Your task to perform on an android device: toggle notifications settings in the gmail app Image 0: 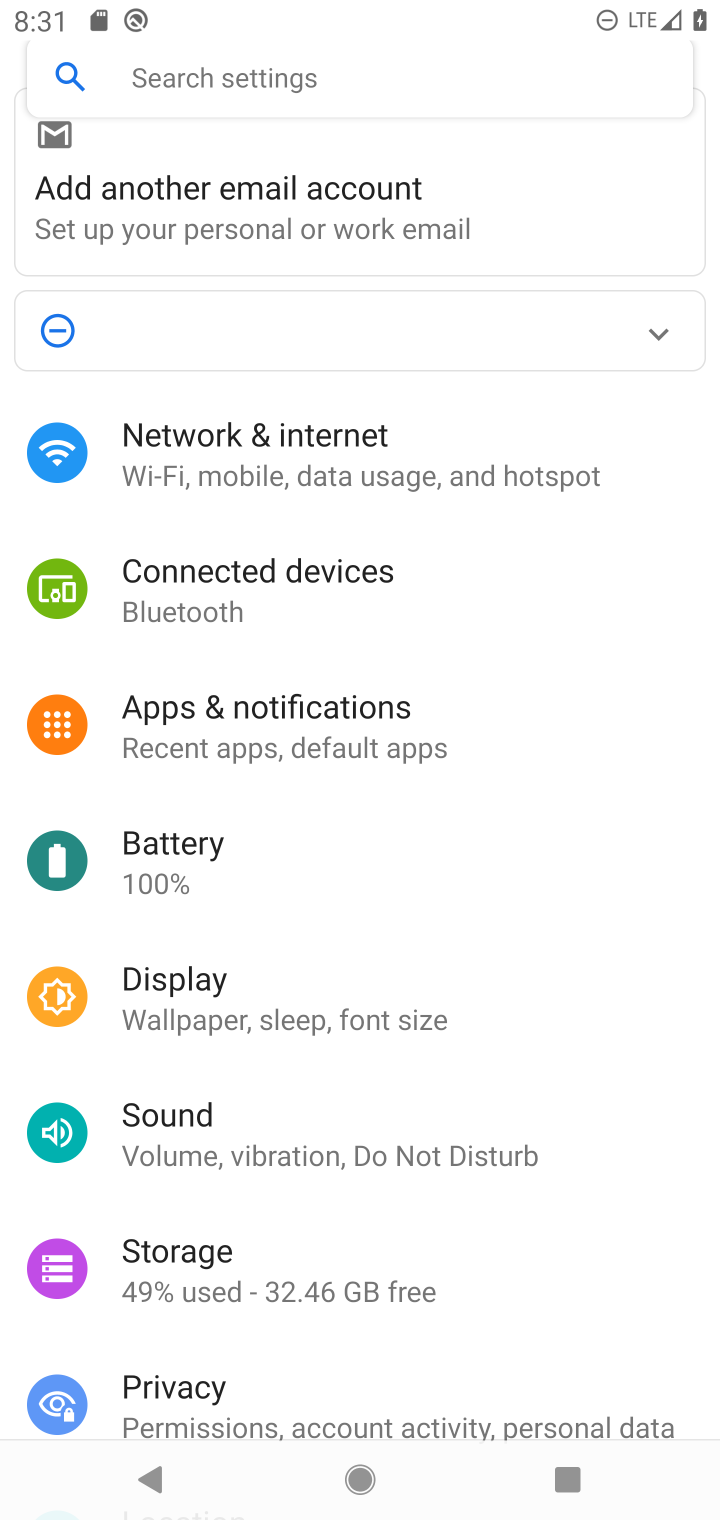
Step 0: press home button
Your task to perform on an android device: toggle notifications settings in the gmail app Image 1: 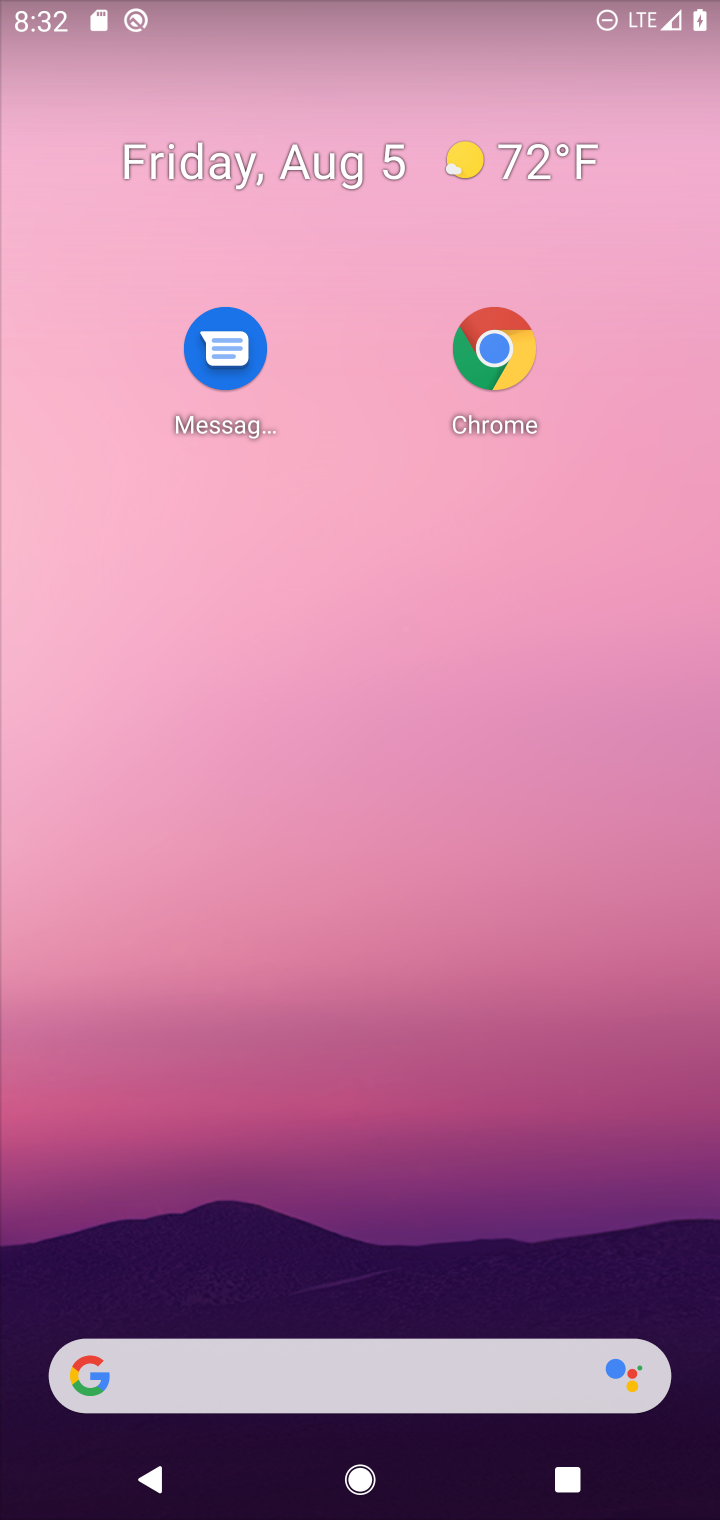
Step 1: drag from (434, 1424) to (486, 419)
Your task to perform on an android device: toggle notifications settings in the gmail app Image 2: 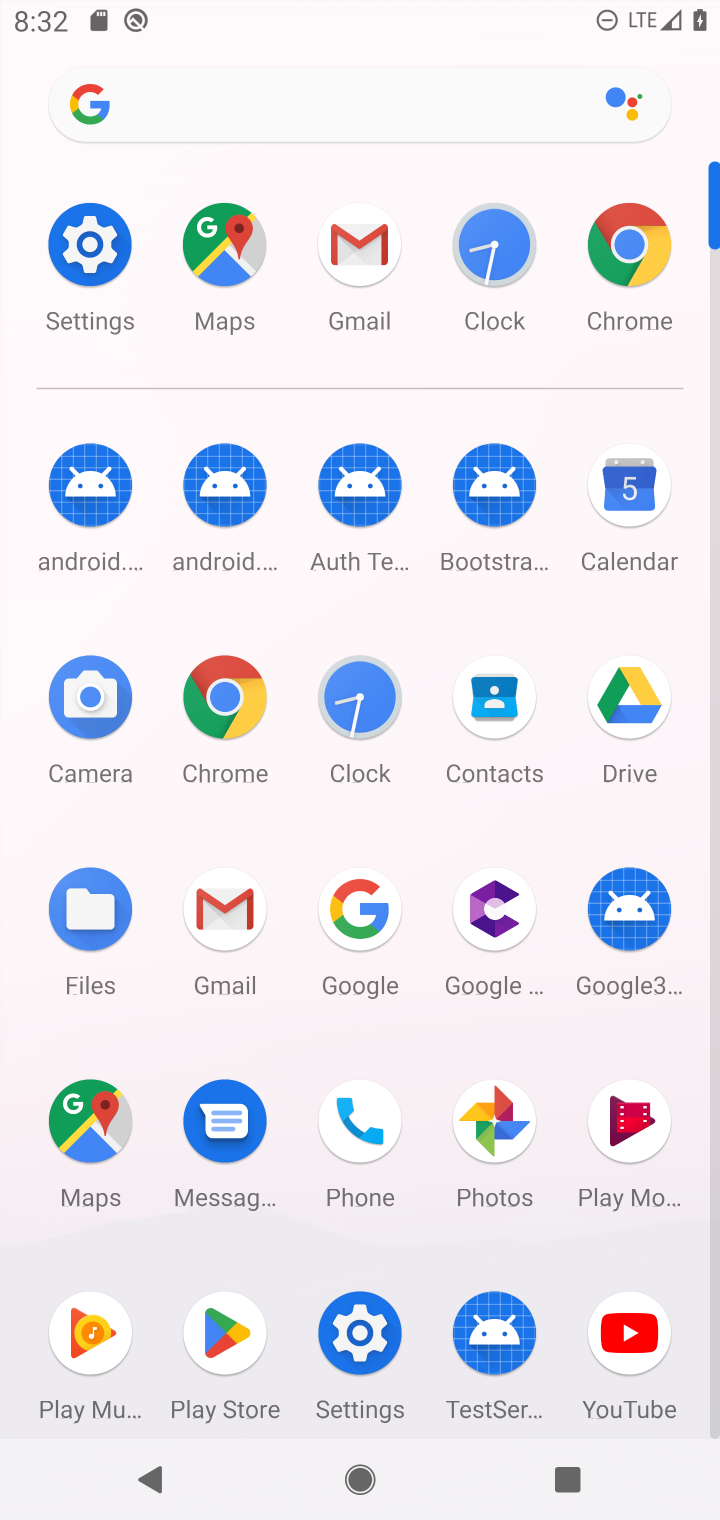
Step 2: click (61, 268)
Your task to perform on an android device: toggle notifications settings in the gmail app Image 3: 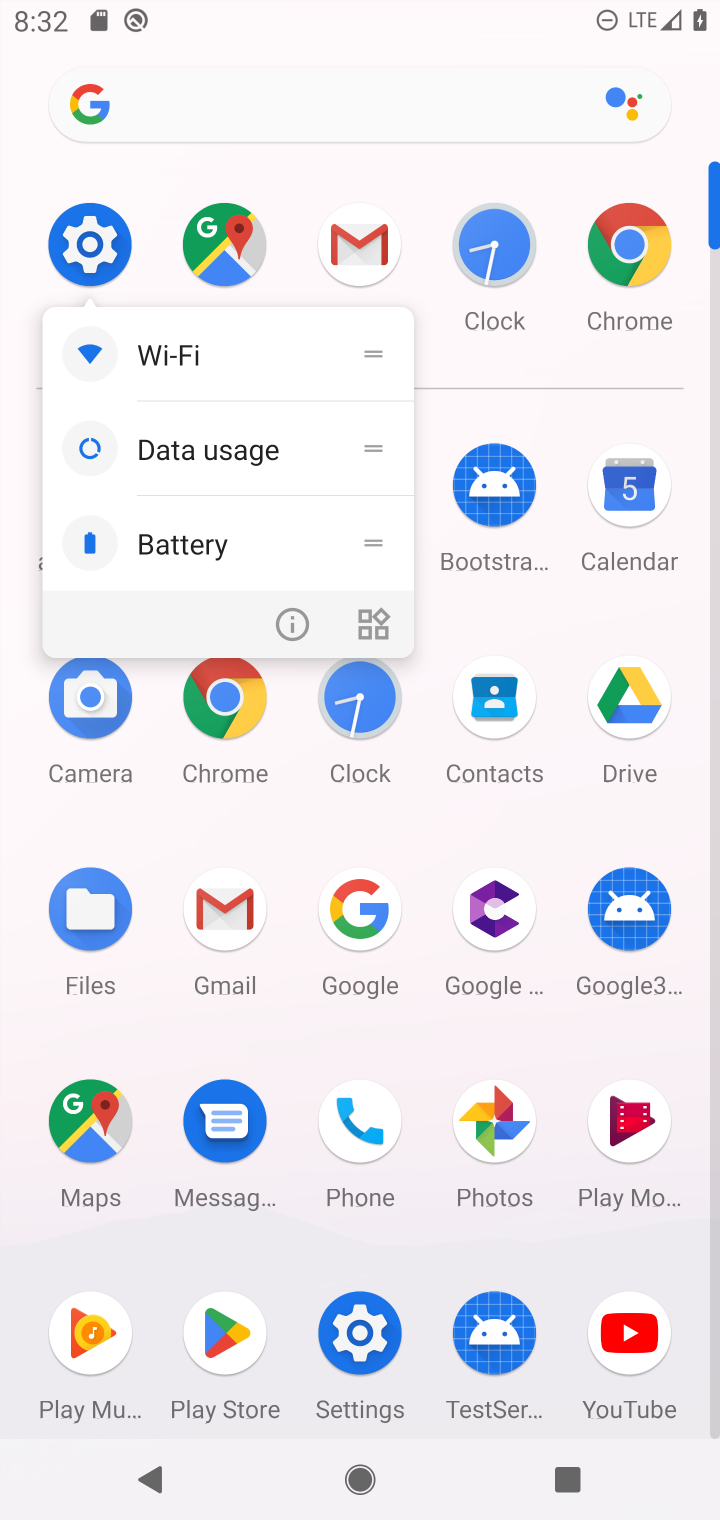
Step 3: click (355, 245)
Your task to perform on an android device: toggle notifications settings in the gmail app Image 4: 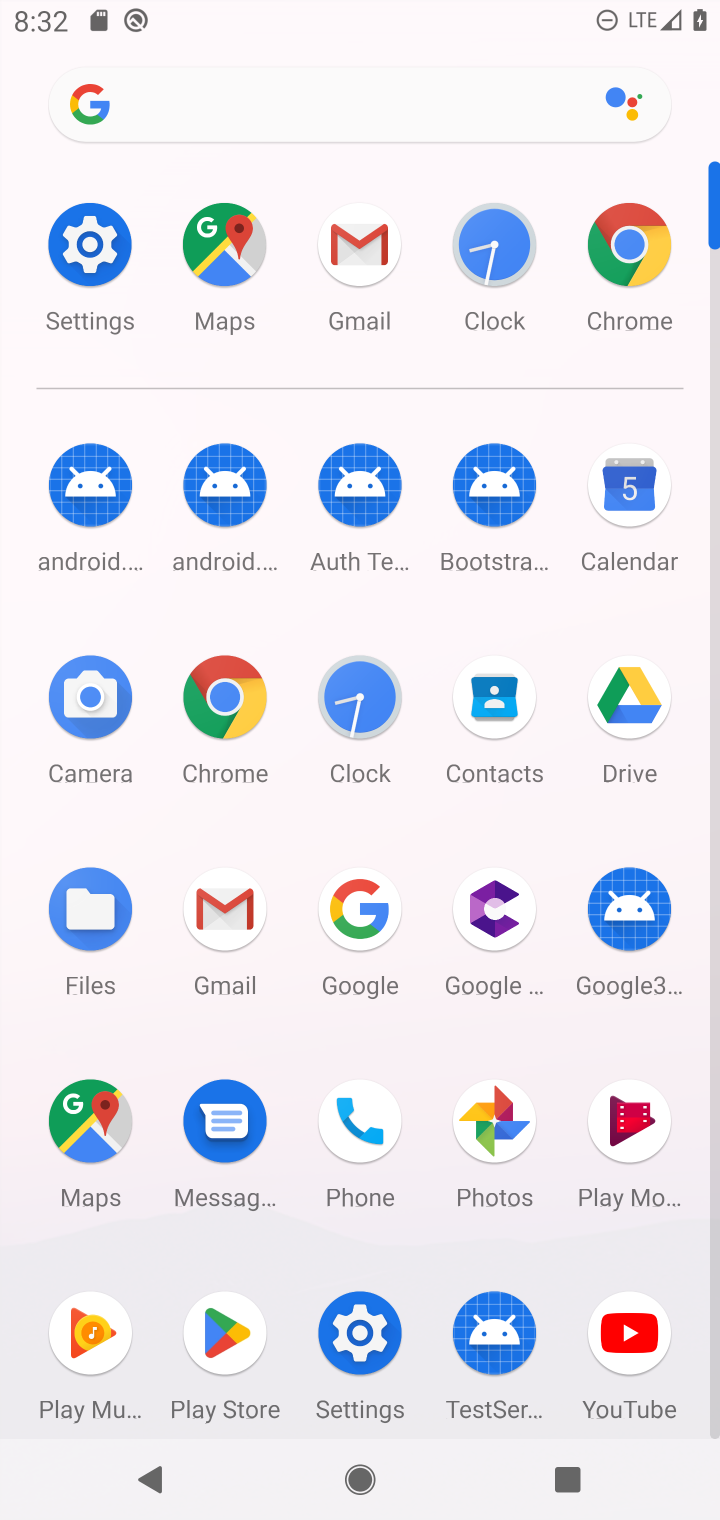
Step 4: click (376, 241)
Your task to perform on an android device: toggle notifications settings in the gmail app Image 5: 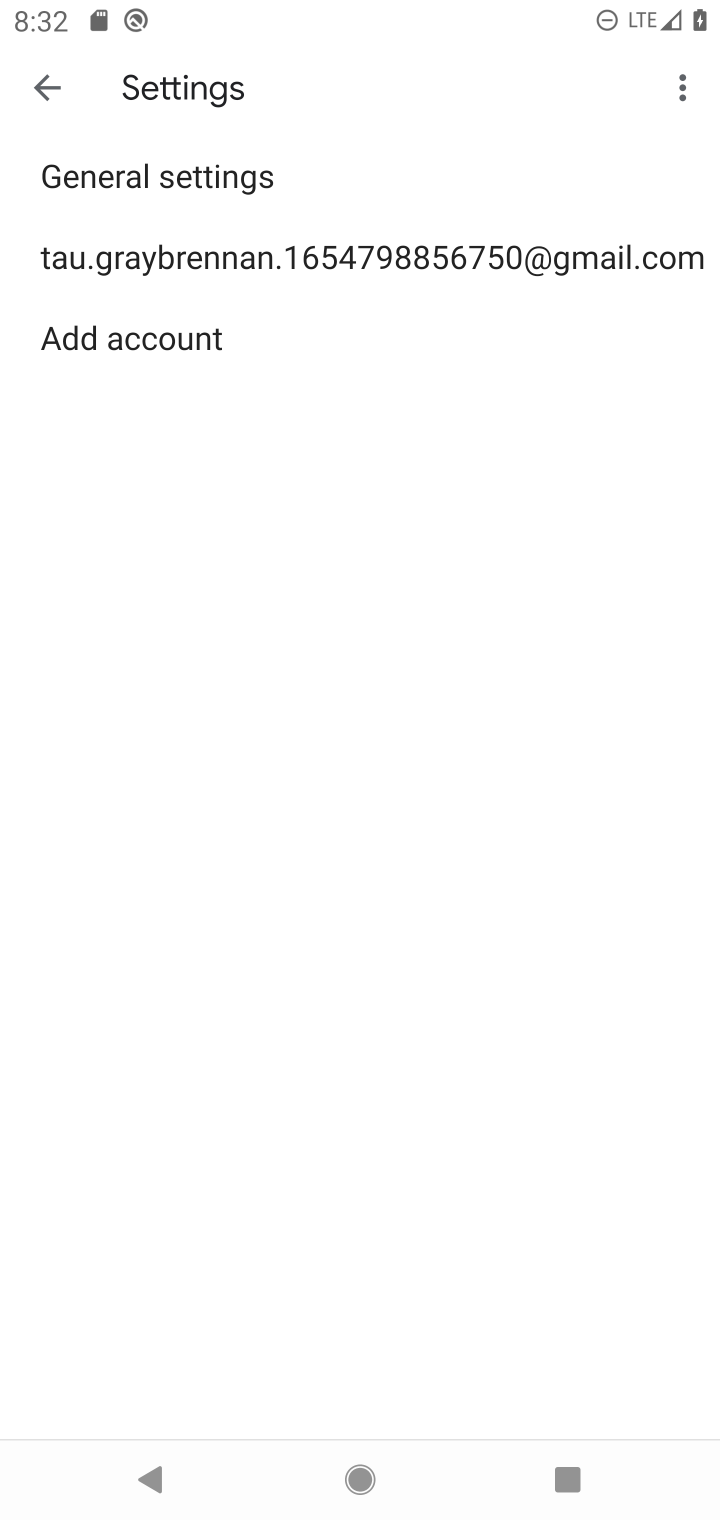
Step 5: click (106, 247)
Your task to perform on an android device: toggle notifications settings in the gmail app Image 6: 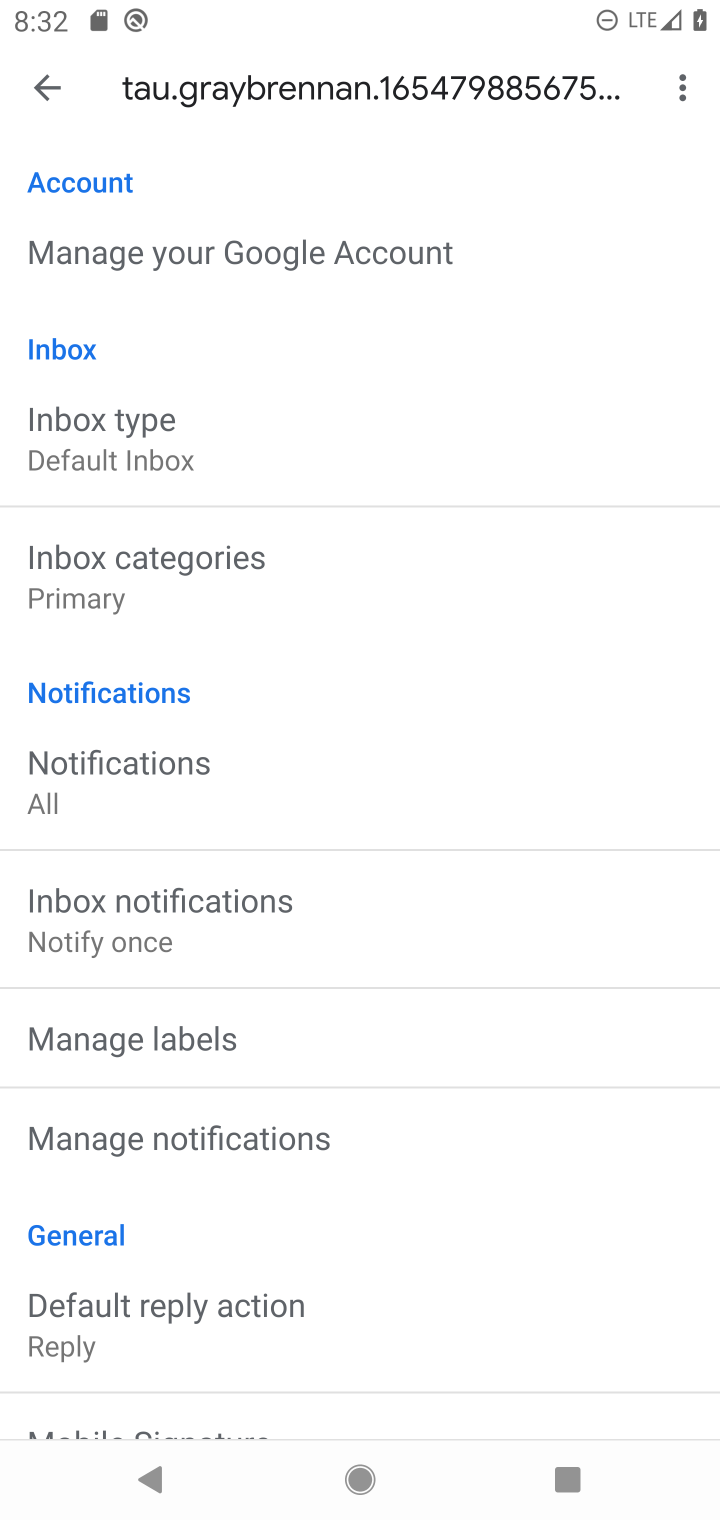
Step 6: click (202, 782)
Your task to perform on an android device: toggle notifications settings in the gmail app Image 7: 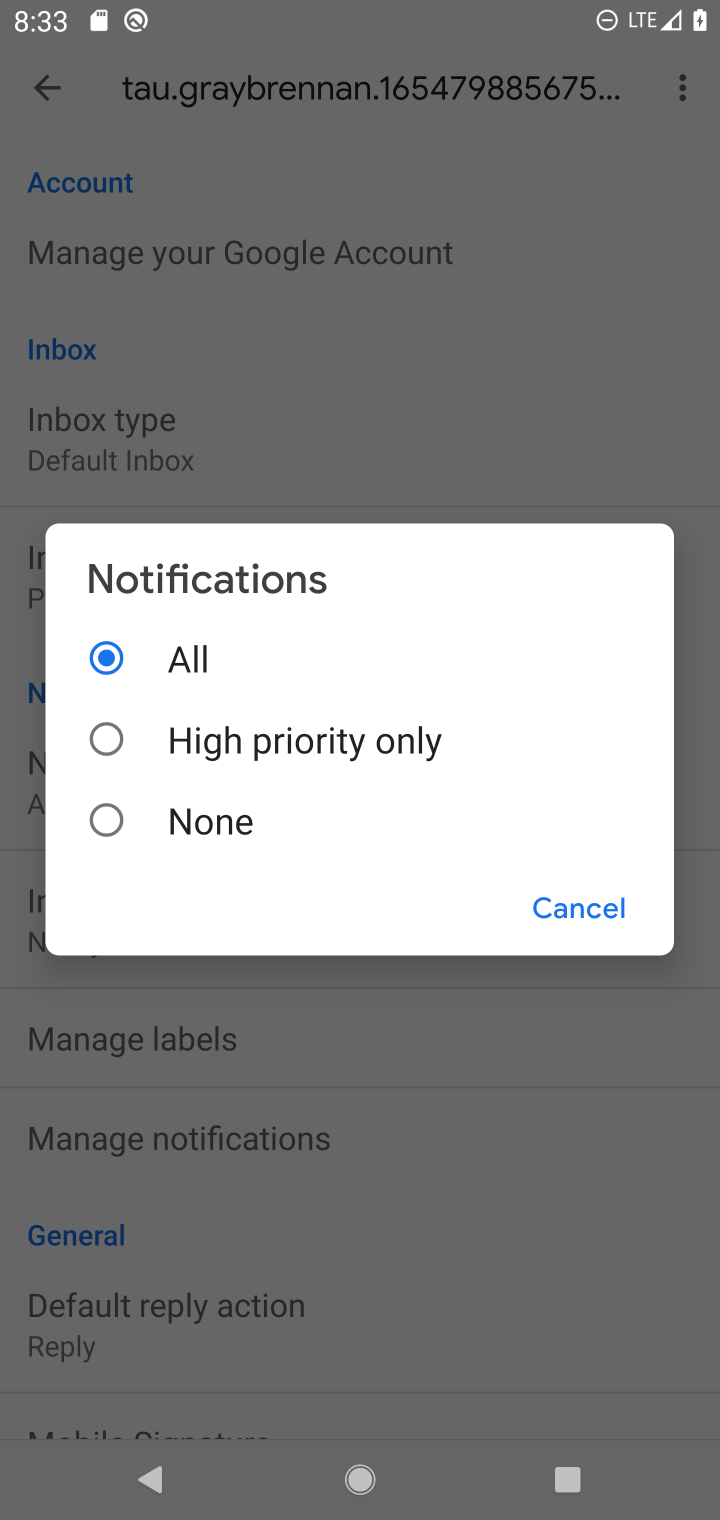
Step 7: task complete